Your task to perform on an android device: Go to ESPN.com Image 0: 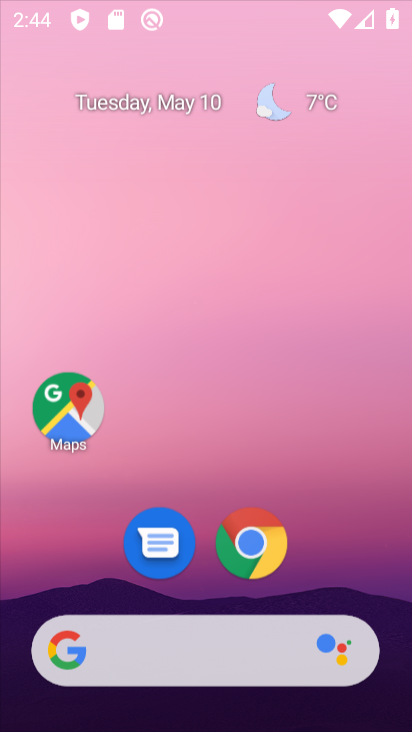
Step 0: drag from (376, 564) to (361, 117)
Your task to perform on an android device: Go to ESPN.com Image 1: 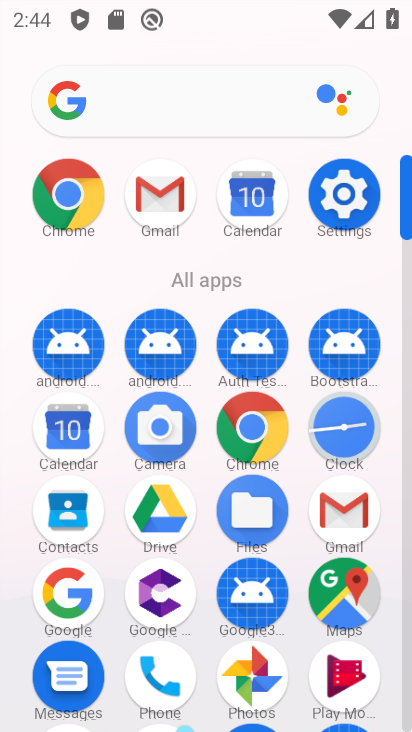
Step 1: click (261, 444)
Your task to perform on an android device: Go to ESPN.com Image 2: 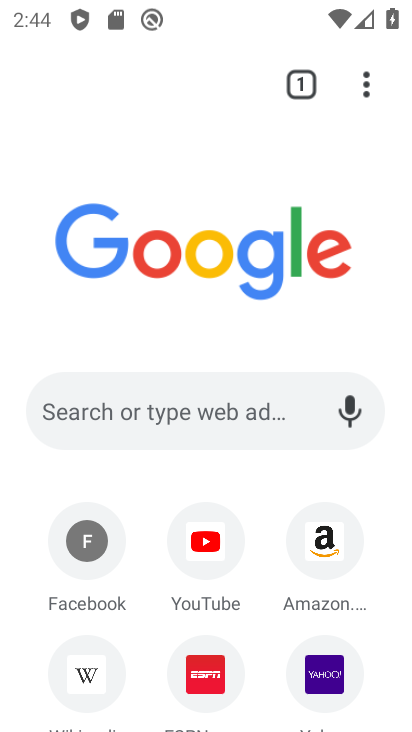
Step 2: click (164, 404)
Your task to perform on an android device: Go to ESPN.com Image 3: 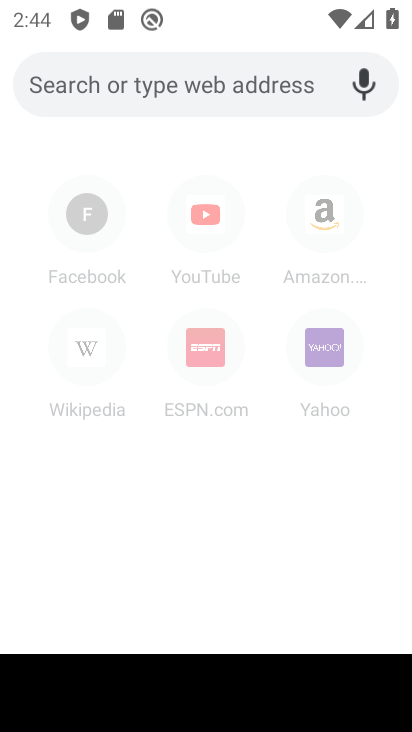
Step 3: type "espn.com"
Your task to perform on an android device: Go to ESPN.com Image 4: 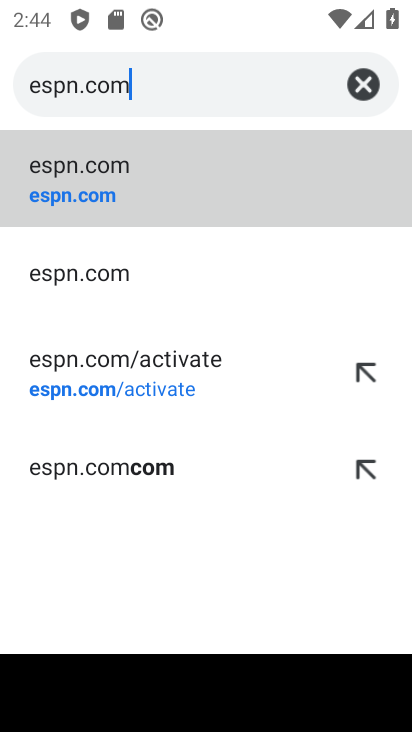
Step 4: click (102, 167)
Your task to perform on an android device: Go to ESPN.com Image 5: 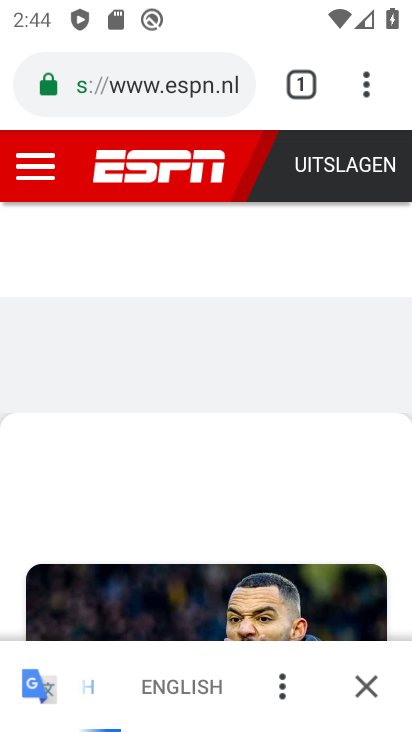
Step 5: task complete